Your task to perform on an android device: Open ESPN.com Image 0: 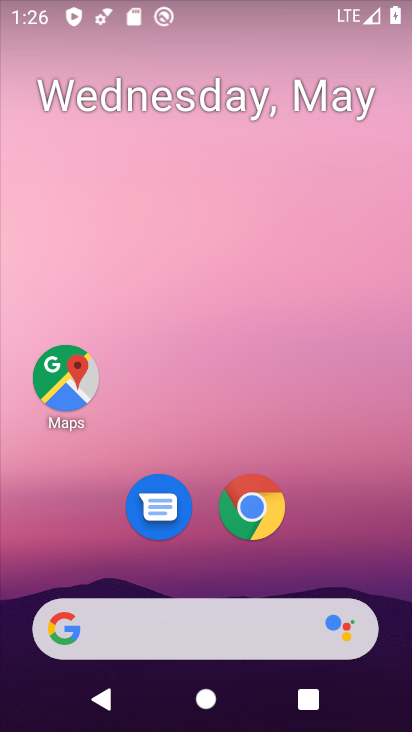
Step 0: drag from (403, 594) to (301, 184)
Your task to perform on an android device: Open ESPN.com Image 1: 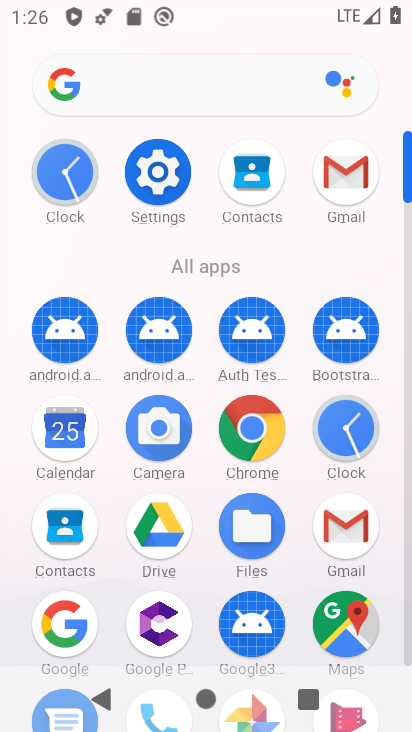
Step 1: click (280, 422)
Your task to perform on an android device: Open ESPN.com Image 2: 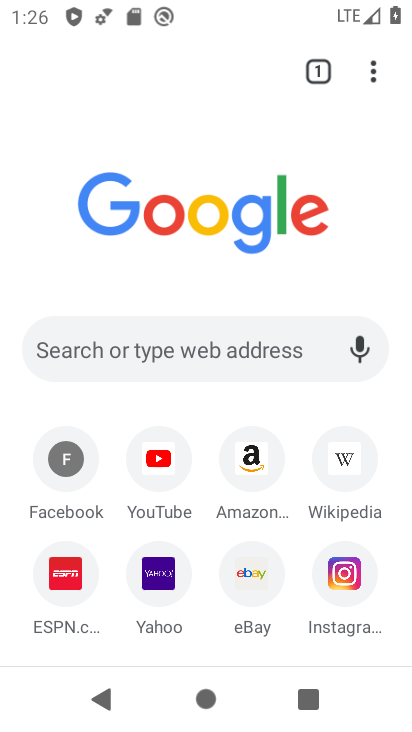
Step 2: click (67, 573)
Your task to perform on an android device: Open ESPN.com Image 3: 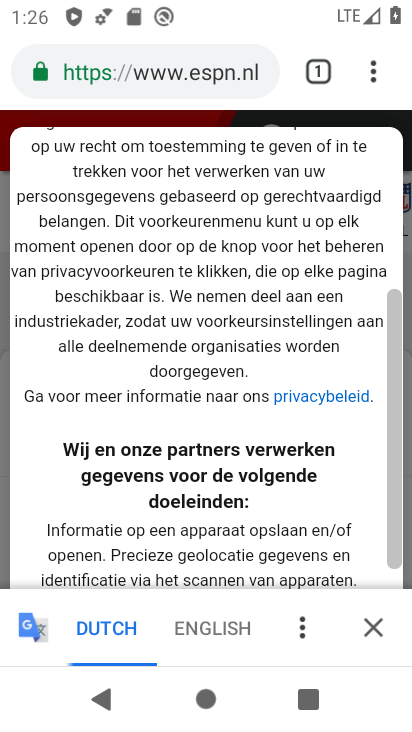
Step 3: task complete